Your task to perform on an android device: Go to Amazon Image 0: 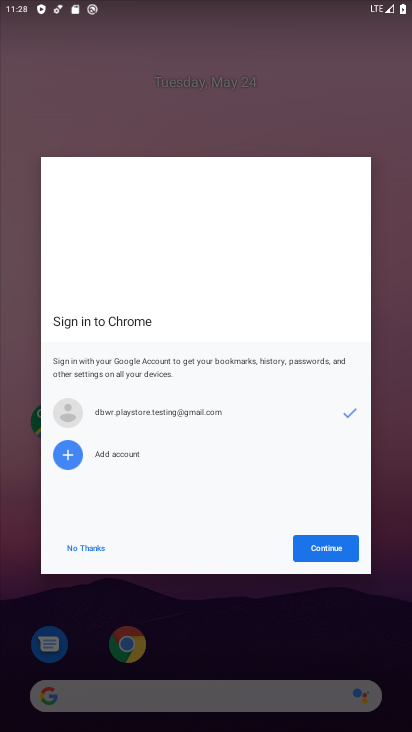
Step 0: press home button
Your task to perform on an android device: Go to Amazon Image 1: 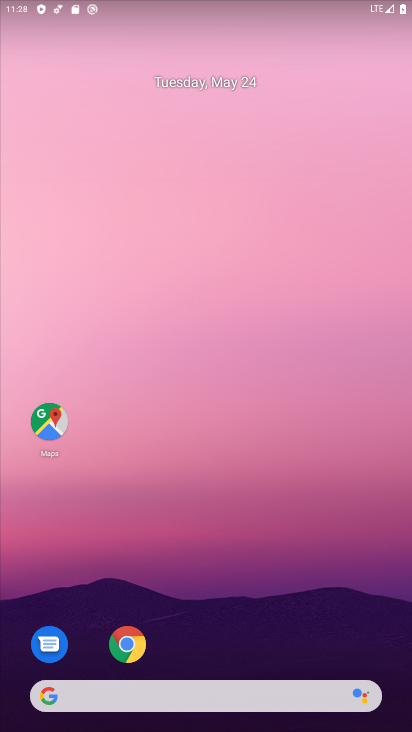
Step 1: click (129, 642)
Your task to perform on an android device: Go to Amazon Image 2: 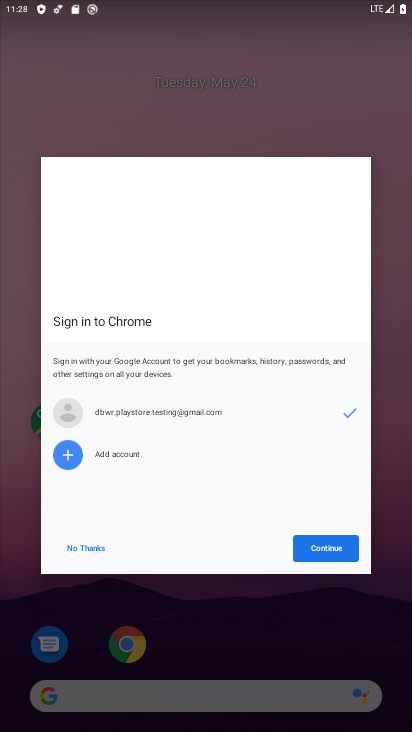
Step 2: click (315, 546)
Your task to perform on an android device: Go to Amazon Image 3: 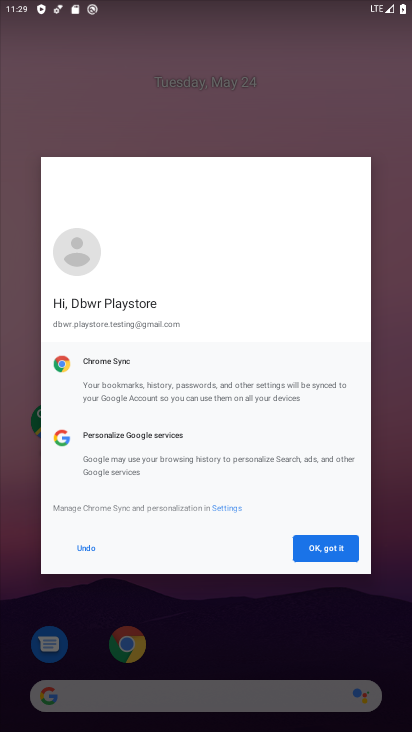
Step 3: click (322, 553)
Your task to perform on an android device: Go to Amazon Image 4: 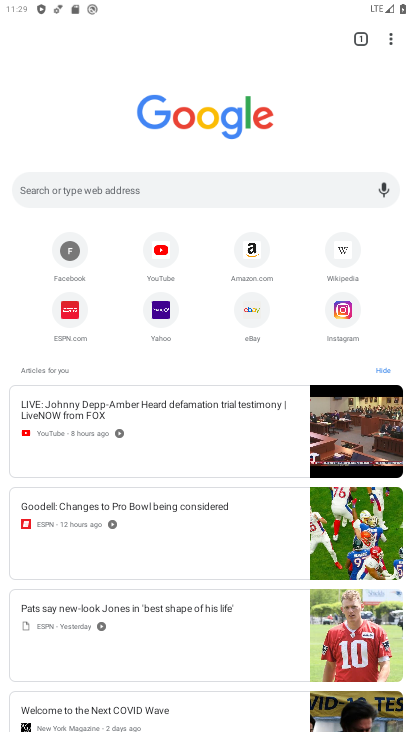
Step 4: click (247, 245)
Your task to perform on an android device: Go to Amazon Image 5: 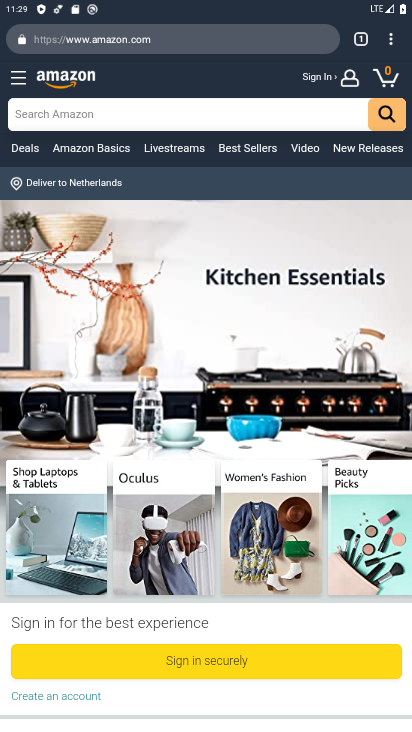
Step 5: task complete